Your task to perform on an android device: turn on airplane mode Image 0: 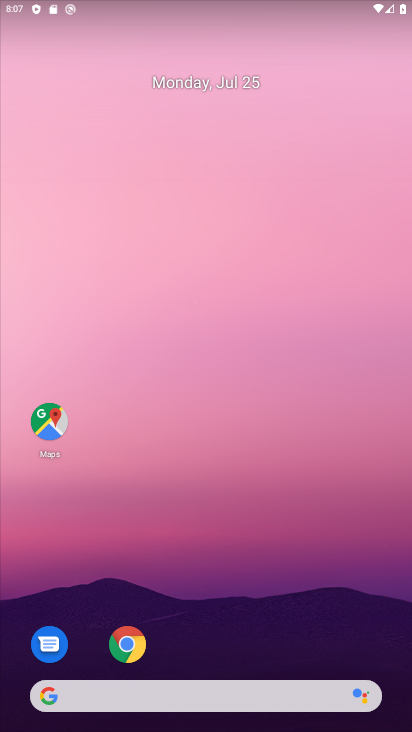
Step 0: drag from (257, 658) to (256, 78)
Your task to perform on an android device: turn on airplane mode Image 1: 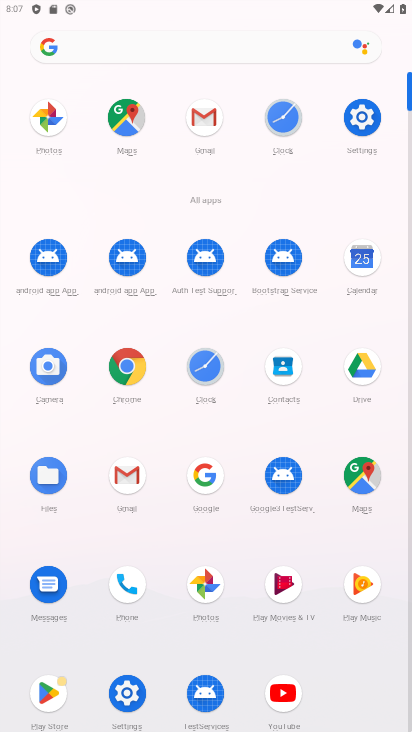
Step 1: click (371, 105)
Your task to perform on an android device: turn on airplane mode Image 2: 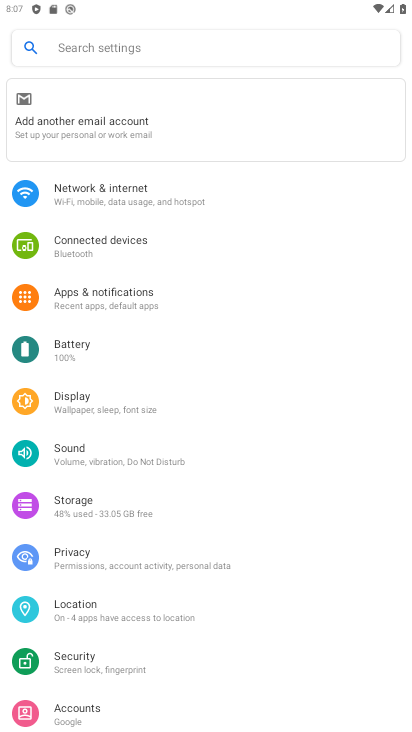
Step 2: click (108, 191)
Your task to perform on an android device: turn on airplane mode Image 3: 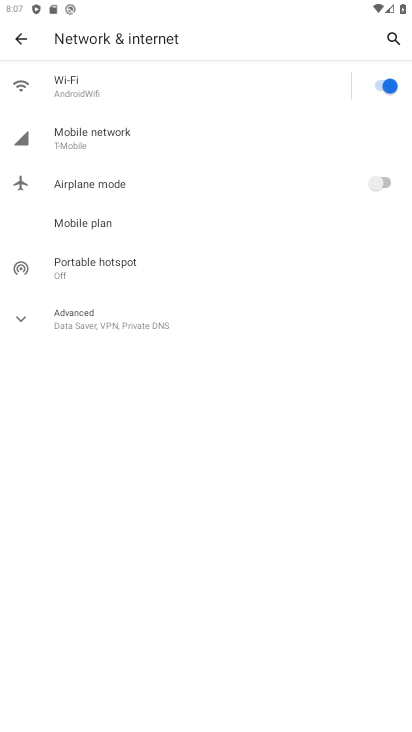
Step 3: click (382, 181)
Your task to perform on an android device: turn on airplane mode Image 4: 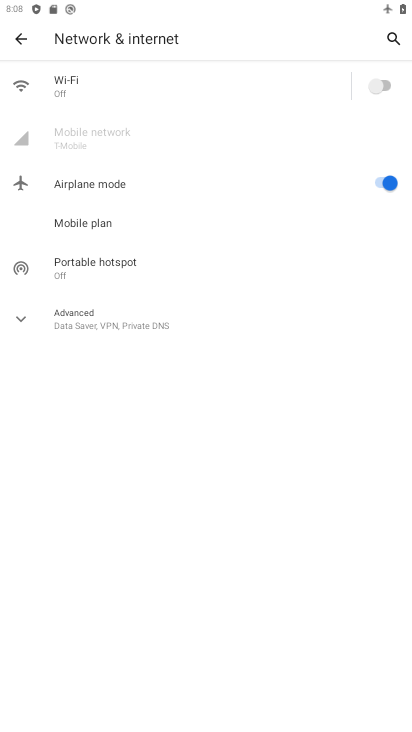
Step 4: task complete